Your task to perform on an android device: Open Chrome and go to the settings page Image 0: 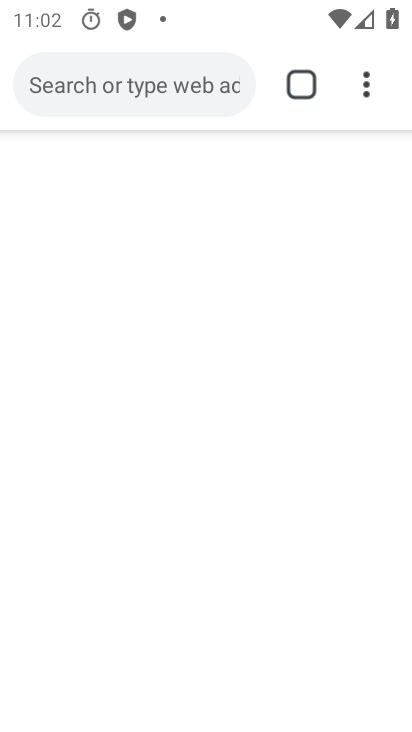
Step 0: drag from (265, 595) to (255, 383)
Your task to perform on an android device: Open Chrome and go to the settings page Image 1: 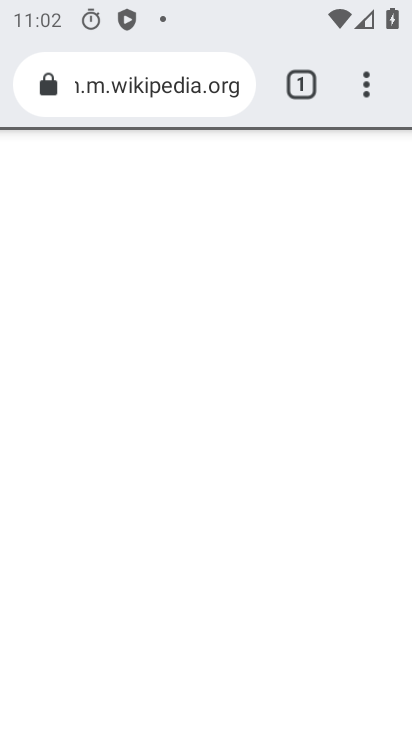
Step 1: press home button
Your task to perform on an android device: Open Chrome and go to the settings page Image 2: 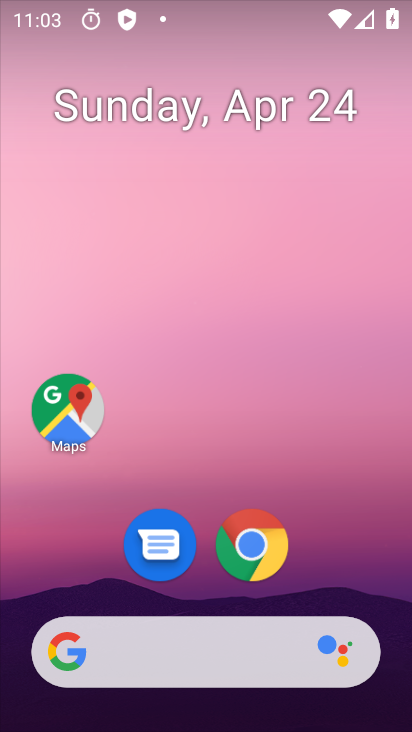
Step 2: drag from (229, 661) to (186, 241)
Your task to perform on an android device: Open Chrome and go to the settings page Image 3: 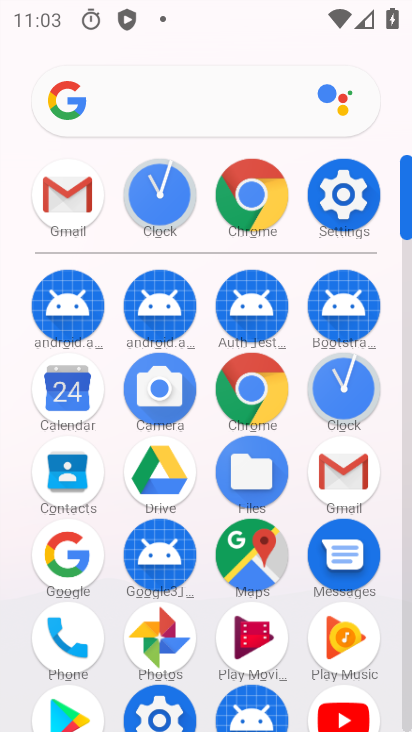
Step 3: click (245, 197)
Your task to perform on an android device: Open Chrome and go to the settings page Image 4: 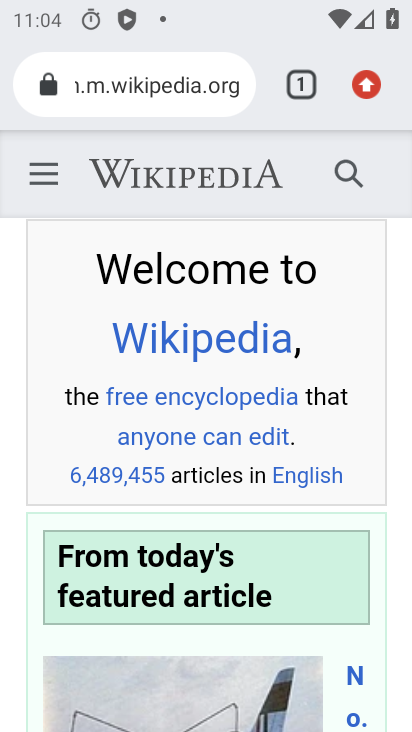
Step 4: click (370, 77)
Your task to perform on an android device: Open Chrome and go to the settings page Image 5: 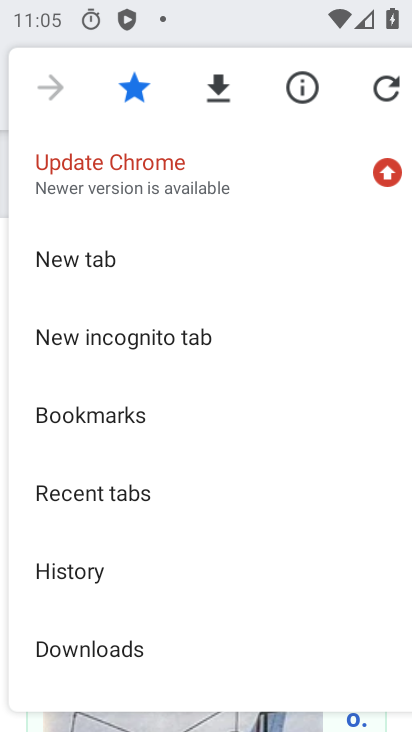
Step 5: drag from (177, 566) to (303, 274)
Your task to perform on an android device: Open Chrome and go to the settings page Image 6: 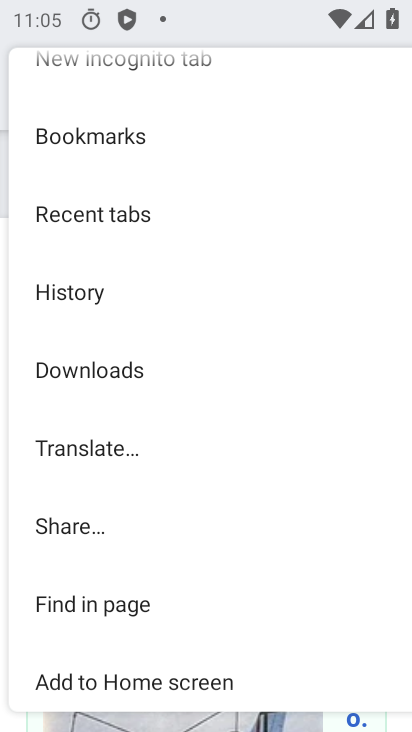
Step 6: drag from (160, 626) to (212, 412)
Your task to perform on an android device: Open Chrome and go to the settings page Image 7: 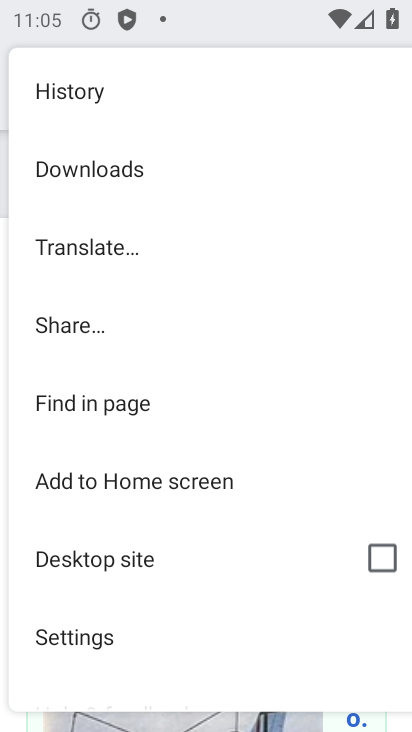
Step 7: click (124, 635)
Your task to perform on an android device: Open Chrome and go to the settings page Image 8: 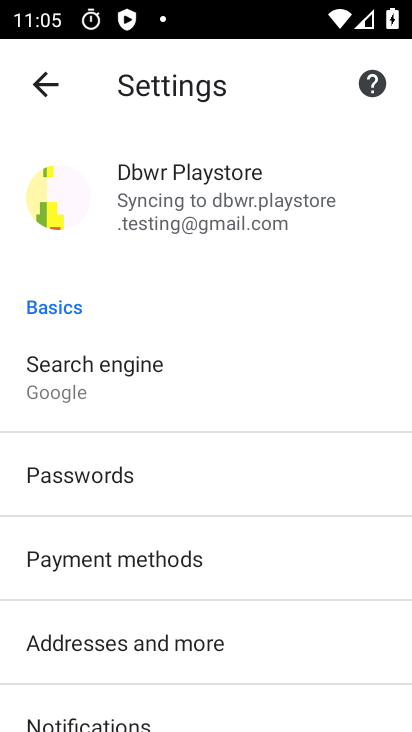
Step 8: task complete